Your task to perform on an android device: toggle pop-ups in chrome Image 0: 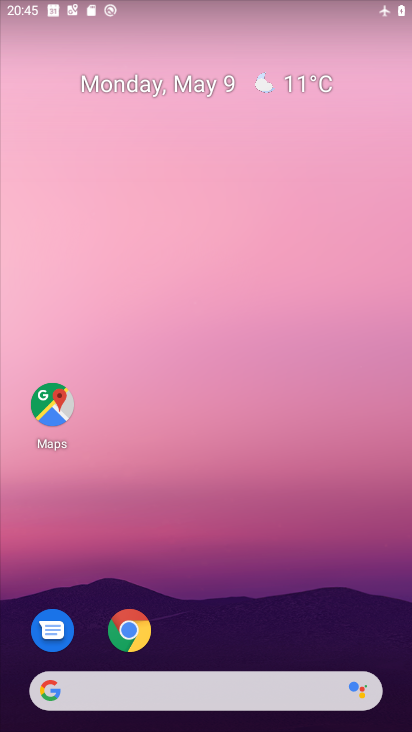
Step 0: click (130, 638)
Your task to perform on an android device: toggle pop-ups in chrome Image 1: 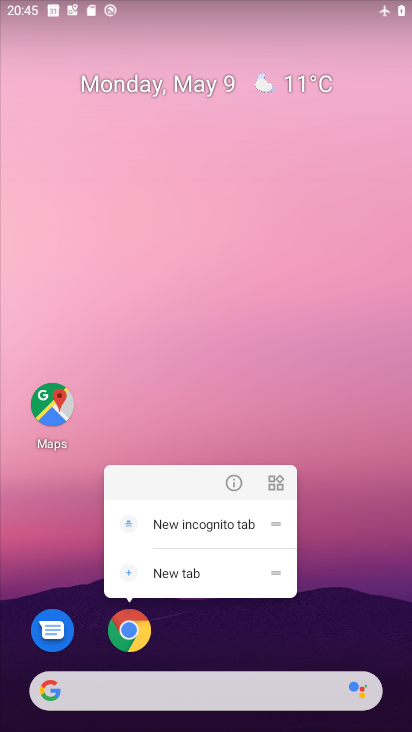
Step 1: click (130, 638)
Your task to perform on an android device: toggle pop-ups in chrome Image 2: 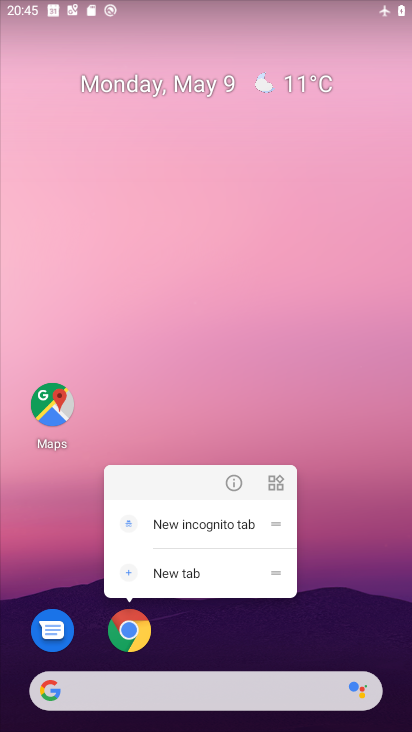
Step 2: click (137, 633)
Your task to perform on an android device: toggle pop-ups in chrome Image 3: 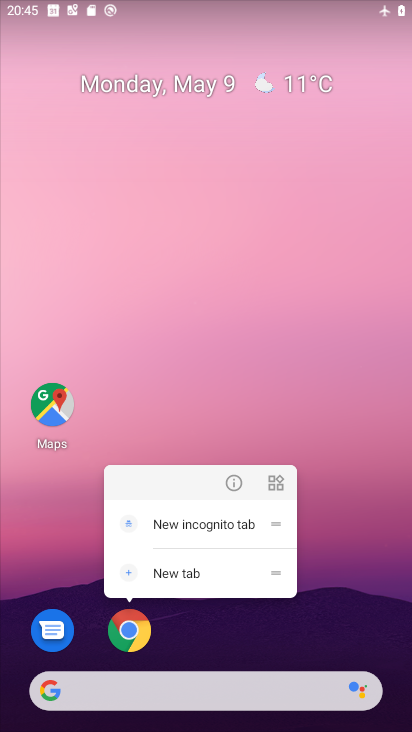
Step 3: click (126, 648)
Your task to perform on an android device: toggle pop-ups in chrome Image 4: 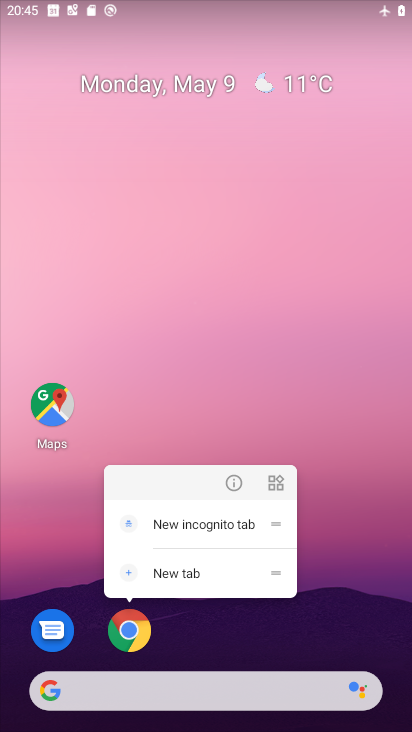
Step 4: click (126, 648)
Your task to perform on an android device: toggle pop-ups in chrome Image 5: 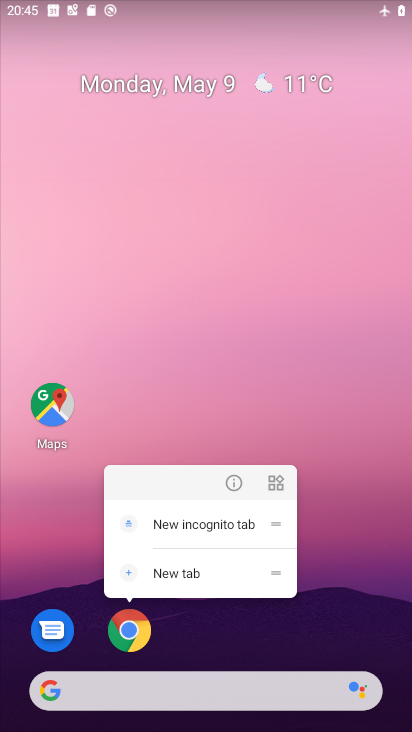
Step 5: click (126, 648)
Your task to perform on an android device: toggle pop-ups in chrome Image 6: 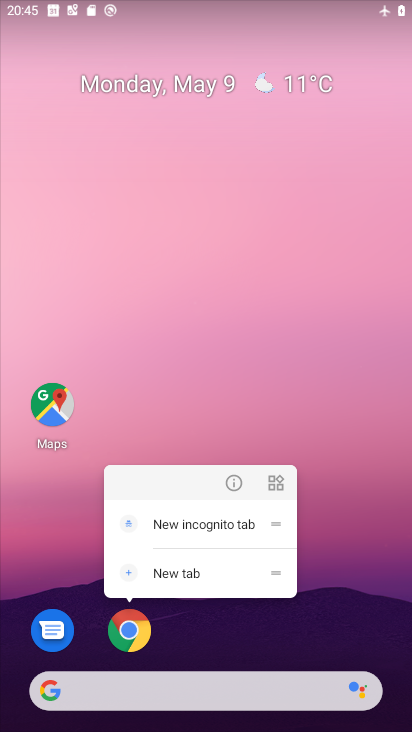
Step 6: click (136, 641)
Your task to perform on an android device: toggle pop-ups in chrome Image 7: 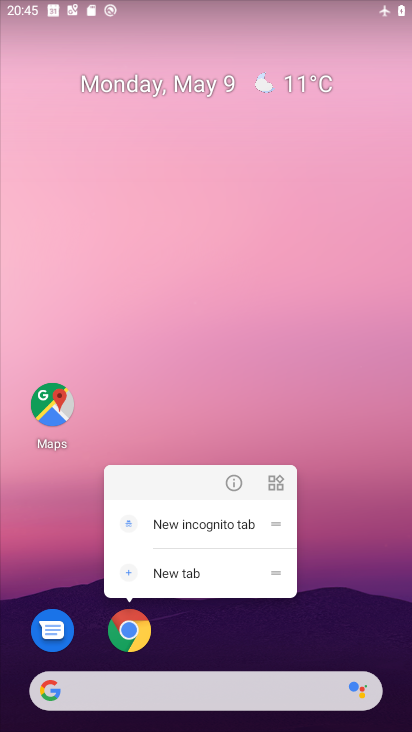
Step 7: click (116, 636)
Your task to perform on an android device: toggle pop-ups in chrome Image 8: 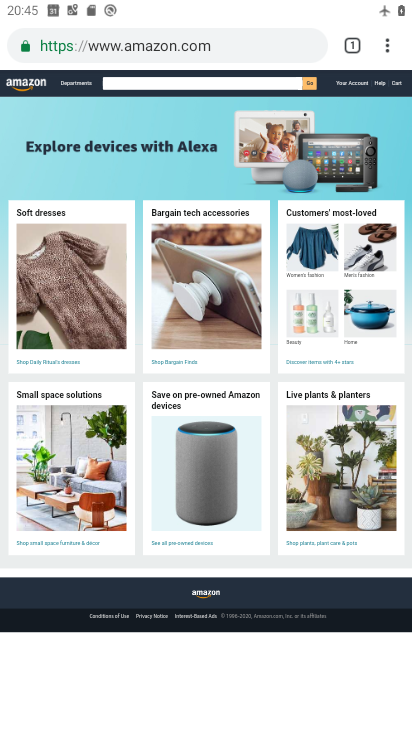
Step 8: drag from (391, 45) to (227, 507)
Your task to perform on an android device: toggle pop-ups in chrome Image 9: 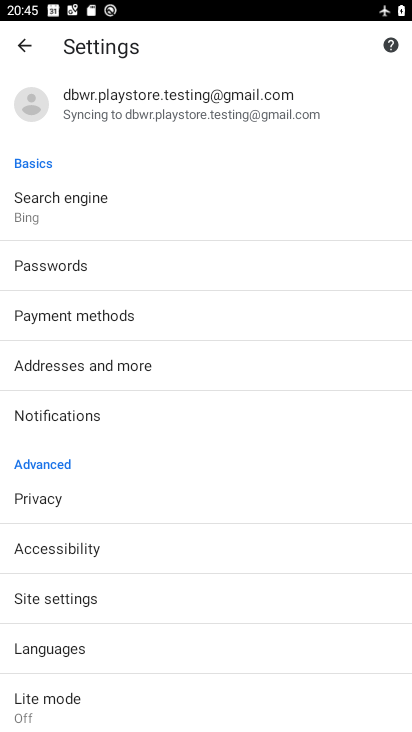
Step 9: click (50, 599)
Your task to perform on an android device: toggle pop-ups in chrome Image 10: 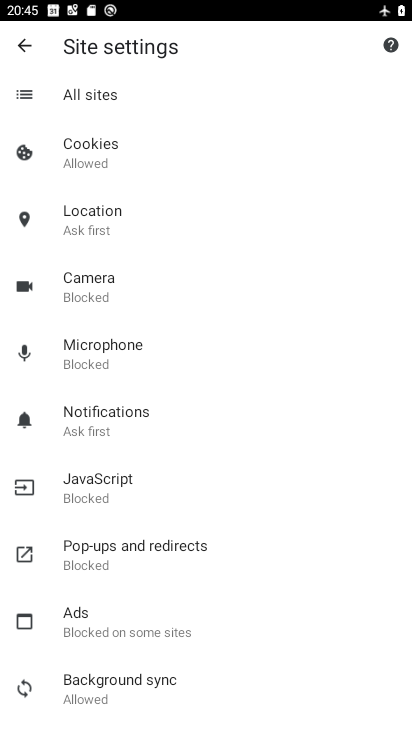
Step 10: click (120, 567)
Your task to perform on an android device: toggle pop-ups in chrome Image 11: 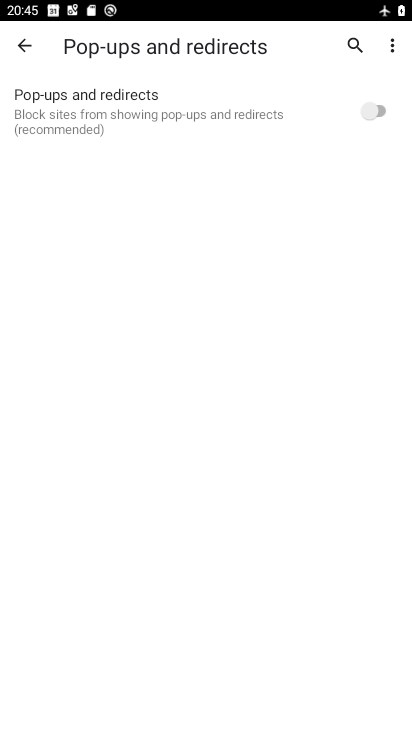
Step 11: click (375, 124)
Your task to perform on an android device: toggle pop-ups in chrome Image 12: 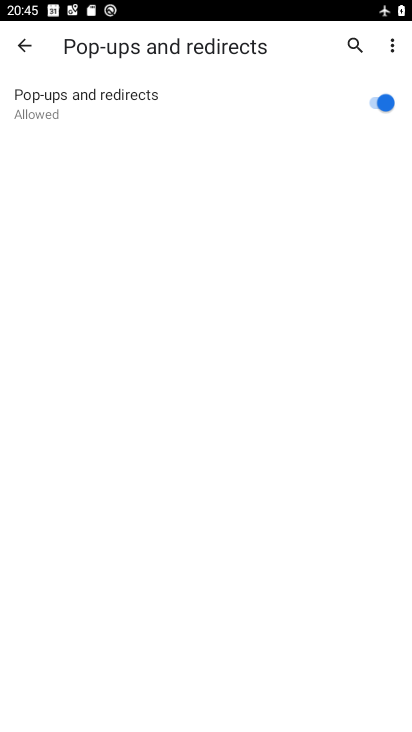
Step 12: task complete